Your task to perform on an android device: Open a new Chrome private window Image 0: 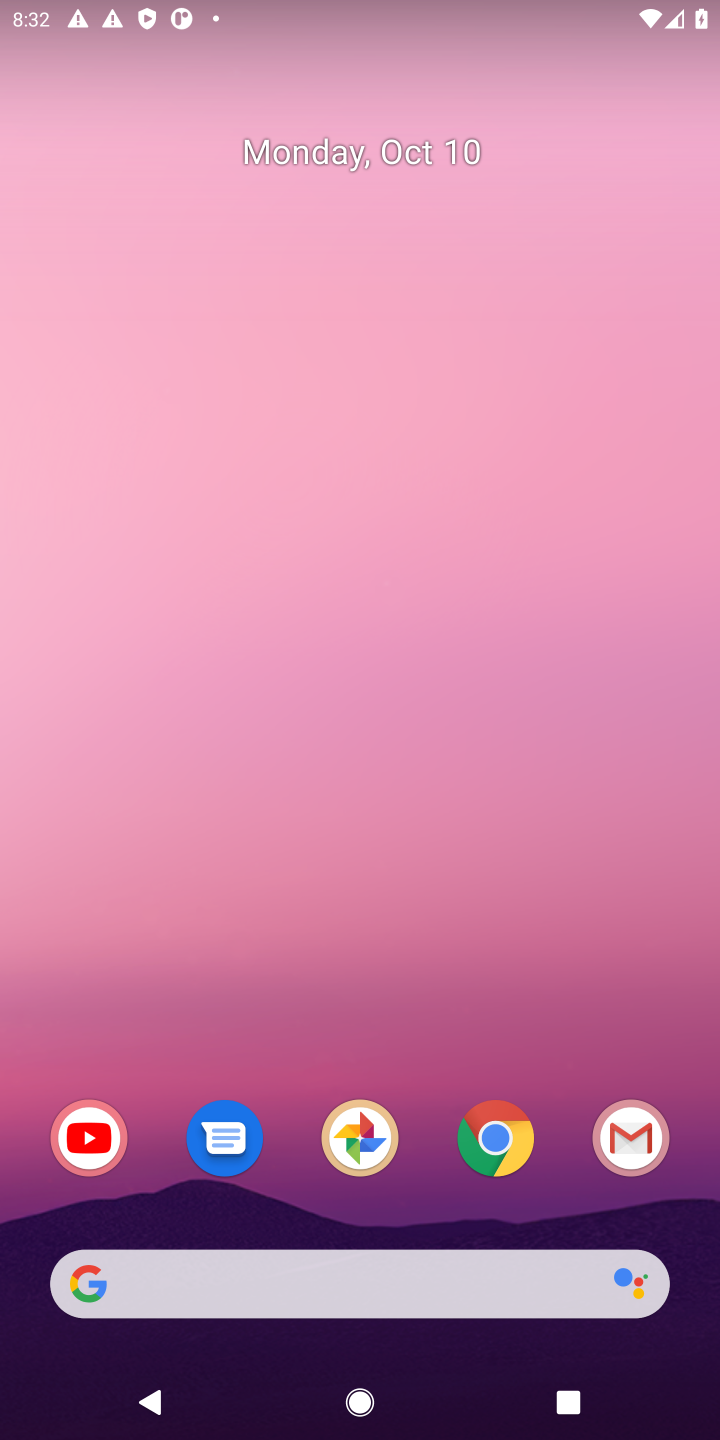
Step 0: click (492, 1136)
Your task to perform on an android device: Open a new Chrome private window Image 1: 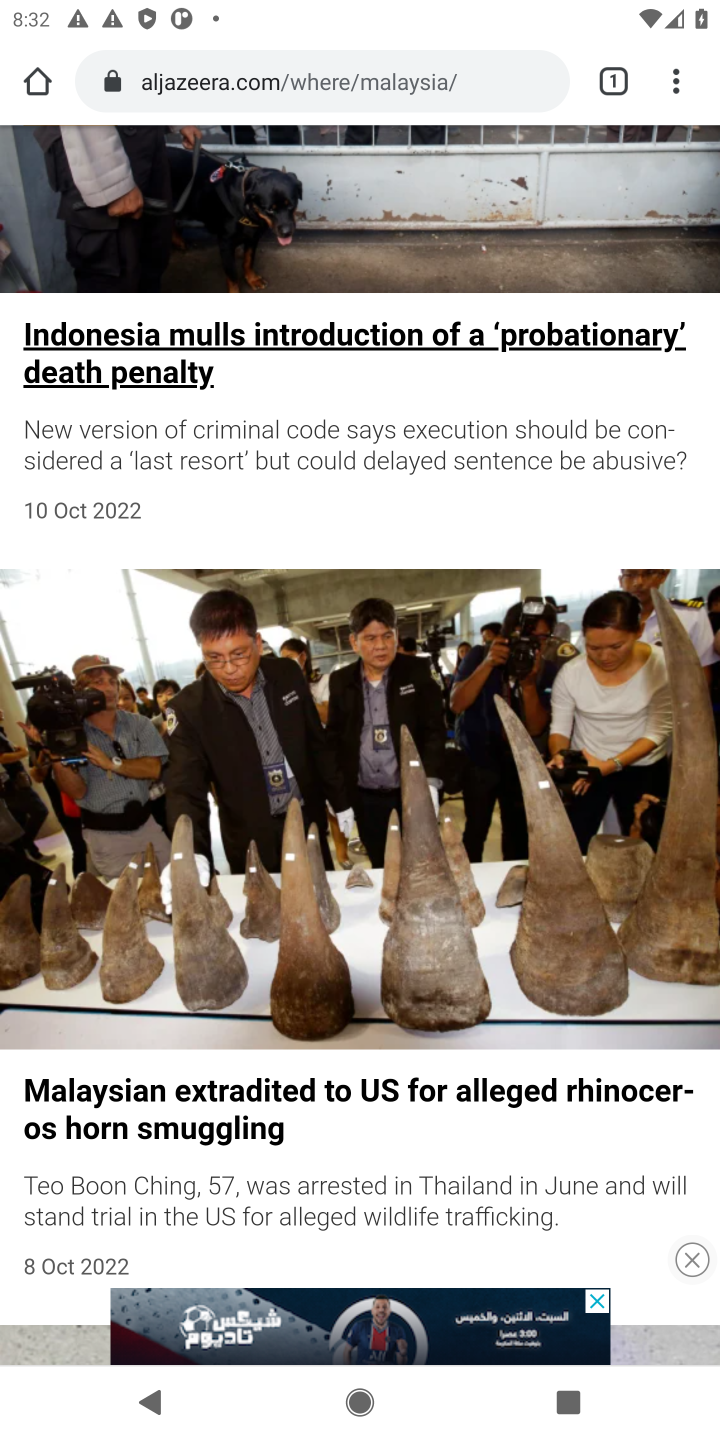
Step 1: task complete